Your task to perform on an android device: turn on translation in the chrome app Image 0: 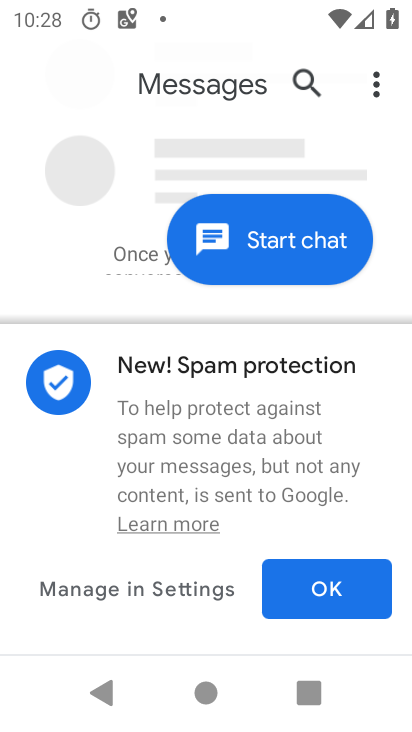
Step 0: press back button
Your task to perform on an android device: turn on translation in the chrome app Image 1: 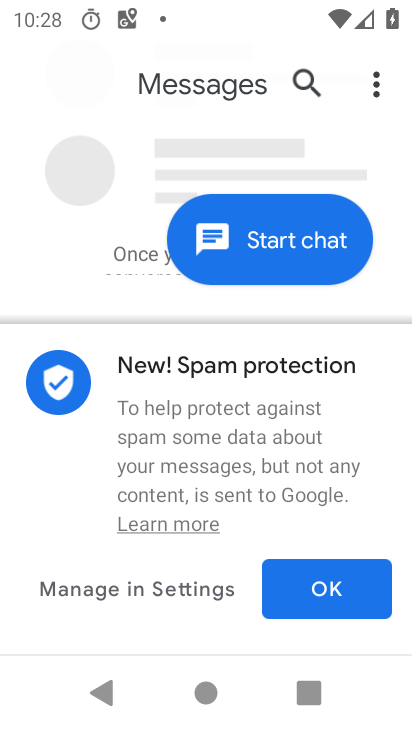
Step 1: press home button
Your task to perform on an android device: turn on translation in the chrome app Image 2: 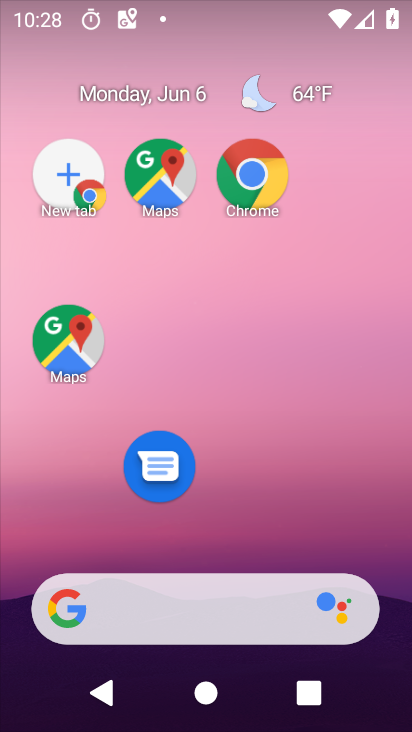
Step 2: drag from (214, 493) to (104, 22)
Your task to perform on an android device: turn on translation in the chrome app Image 3: 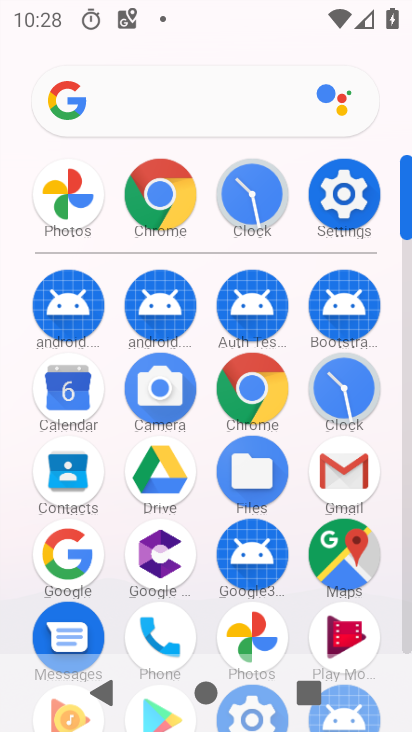
Step 3: click (144, 196)
Your task to perform on an android device: turn on translation in the chrome app Image 4: 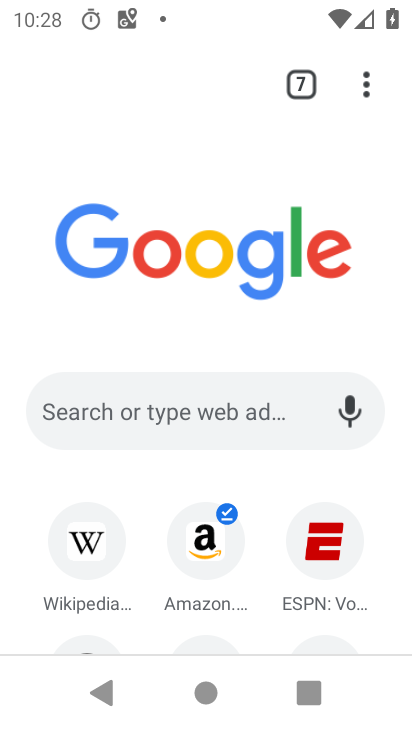
Step 4: click (355, 88)
Your task to perform on an android device: turn on translation in the chrome app Image 5: 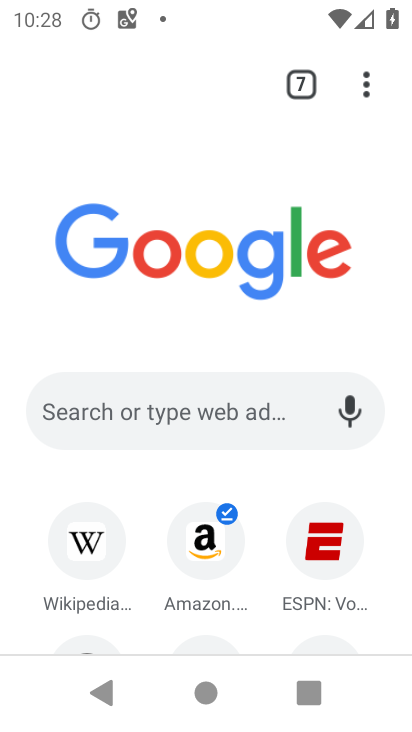
Step 5: drag from (361, 89) to (52, 510)
Your task to perform on an android device: turn on translation in the chrome app Image 6: 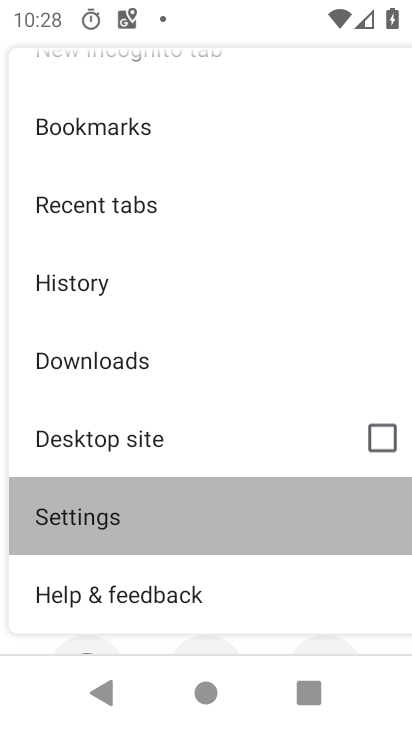
Step 6: click (54, 509)
Your task to perform on an android device: turn on translation in the chrome app Image 7: 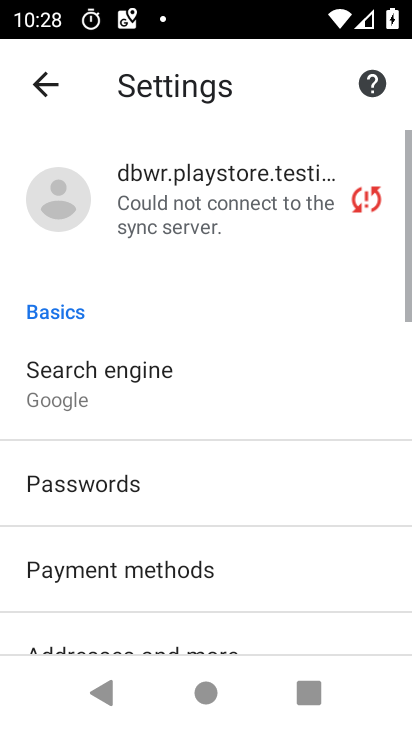
Step 7: drag from (215, 476) to (133, 119)
Your task to perform on an android device: turn on translation in the chrome app Image 8: 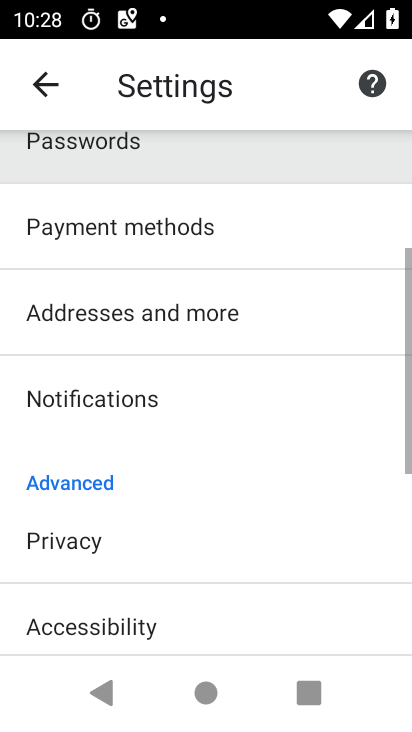
Step 8: drag from (118, 401) to (92, 216)
Your task to perform on an android device: turn on translation in the chrome app Image 9: 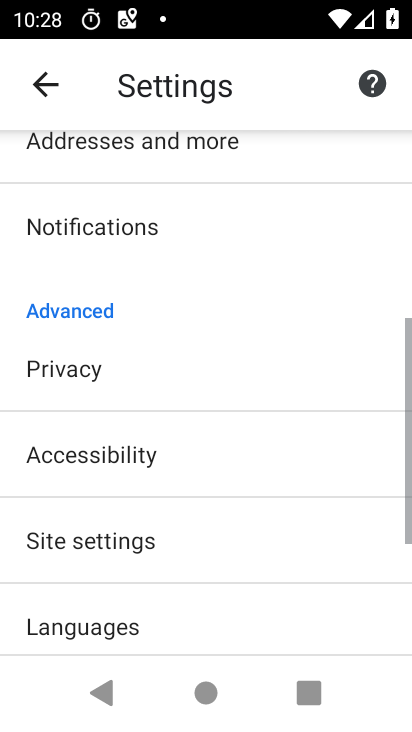
Step 9: drag from (126, 419) to (109, 138)
Your task to perform on an android device: turn on translation in the chrome app Image 10: 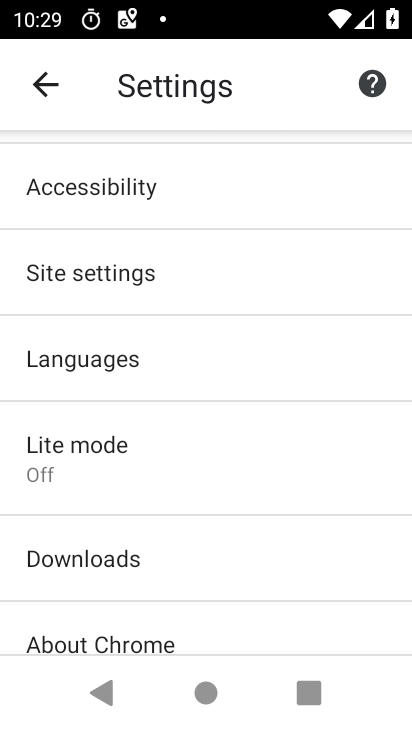
Step 10: click (62, 351)
Your task to perform on an android device: turn on translation in the chrome app Image 11: 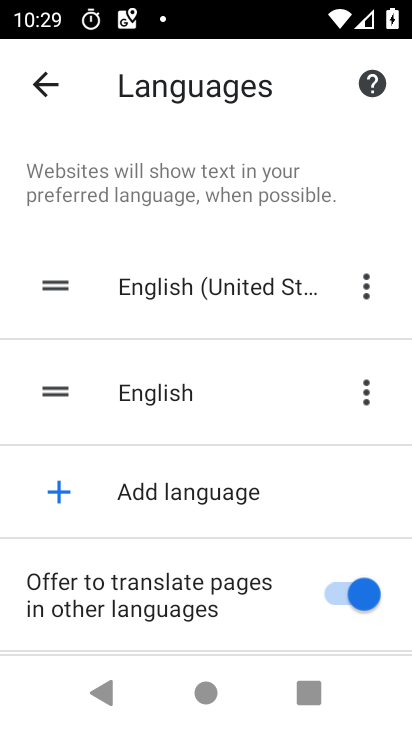
Step 11: task complete